Your task to perform on an android device: change the clock display to analog Image 0: 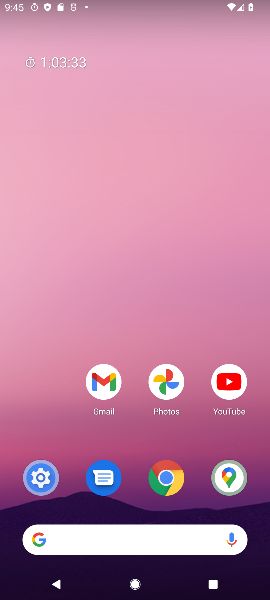
Step 0: press home button
Your task to perform on an android device: change the clock display to analog Image 1: 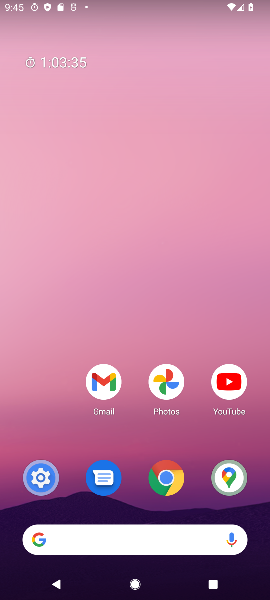
Step 1: drag from (93, 416) to (106, 68)
Your task to perform on an android device: change the clock display to analog Image 2: 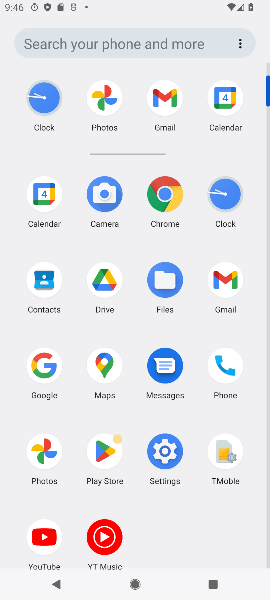
Step 2: click (234, 183)
Your task to perform on an android device: change the clock display to analog Image 3: 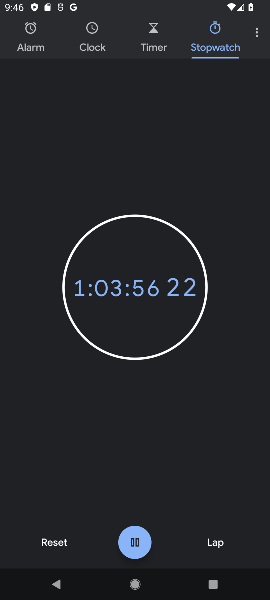
Step 3: click (263, 32)
Your task to perform on an android device: change the clock display to analog Image 4: 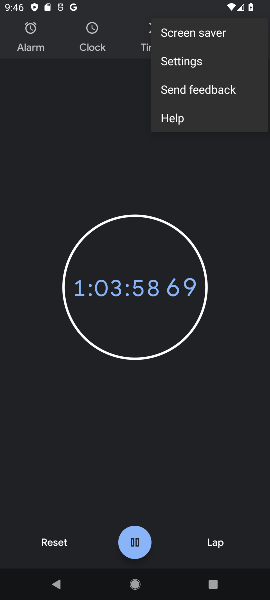
Step 4: click (179, 61)
Your task to perform on an android device: change the clock display to analog Image 5: 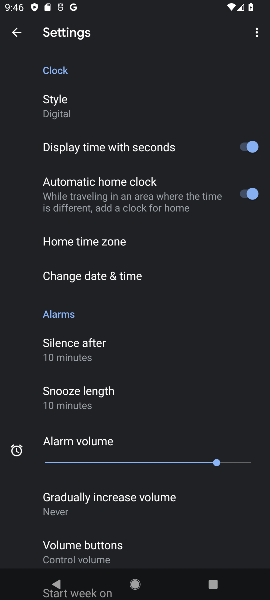
Step 5: click (65, 117)
Your task to perform on an android device: change the clock display to analog Image 6: 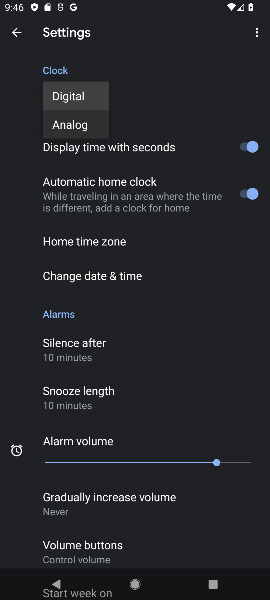
Step 6: click (58, 127)
Your task to perform on an android device: change the clock display to analog Image 7: 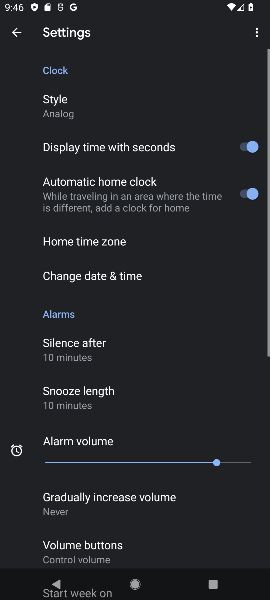
Step 7: task complete